Your task to perform on an android device: star an email in the gmail app Image 0: 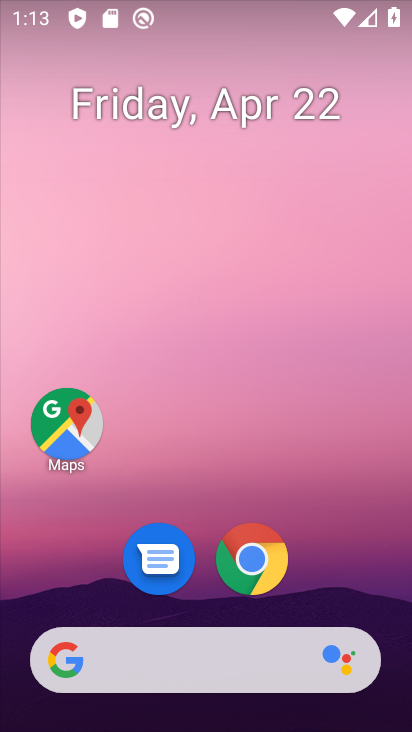
Step 0: drag from (203, 502) to (246, 169)
Your task to perform on an android device: star an email in the gmail app Image 1: 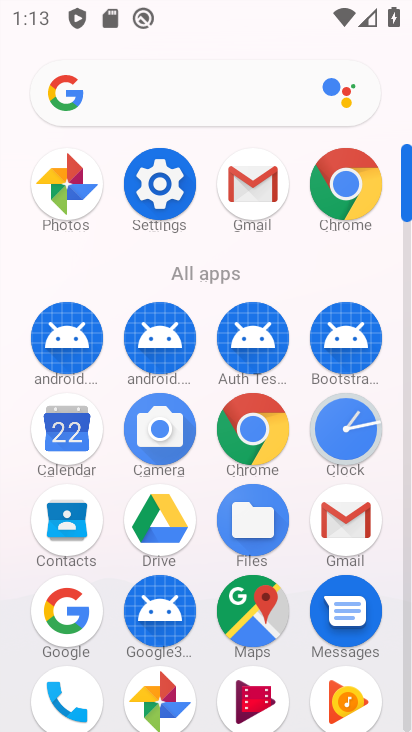
Step 1: click (246, 169)
Your task to perform on an android device: star an email in the gmail app Image 2: 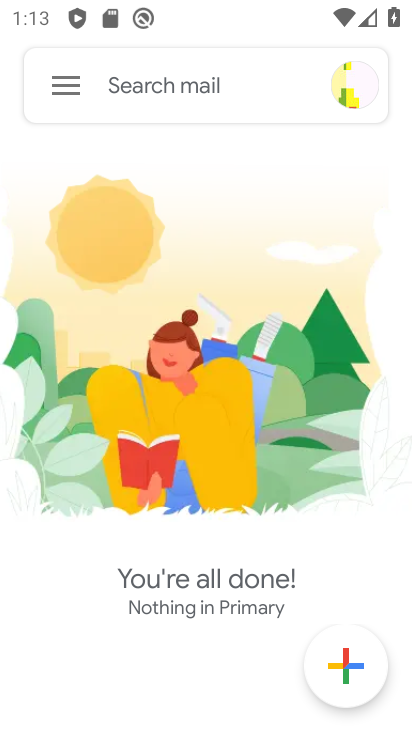
Step 2: task complete